Your task to perform on an android device: change timer sound Image 0: 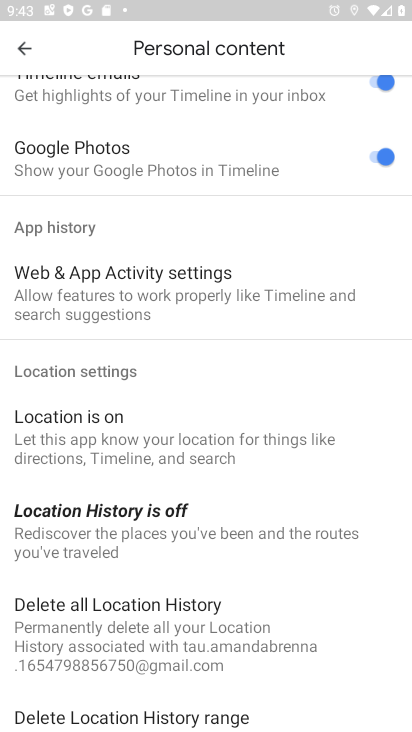
Step 0: press home button
Your task to perform on an android device: change timer sound Image 1: 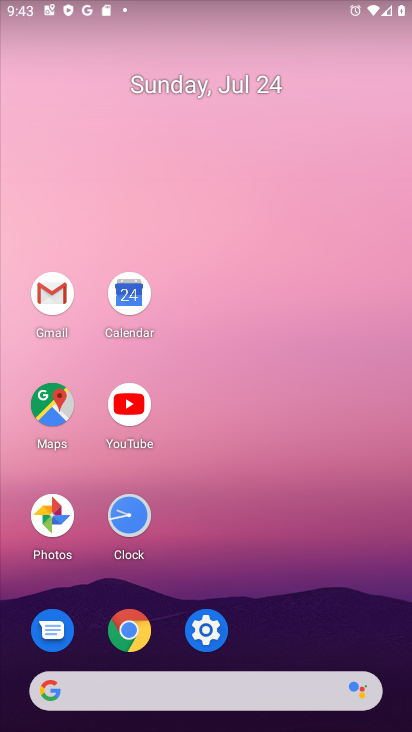
Step 1: click (132, 526)
Your task to perform on an android device: change timer sound Image 2: 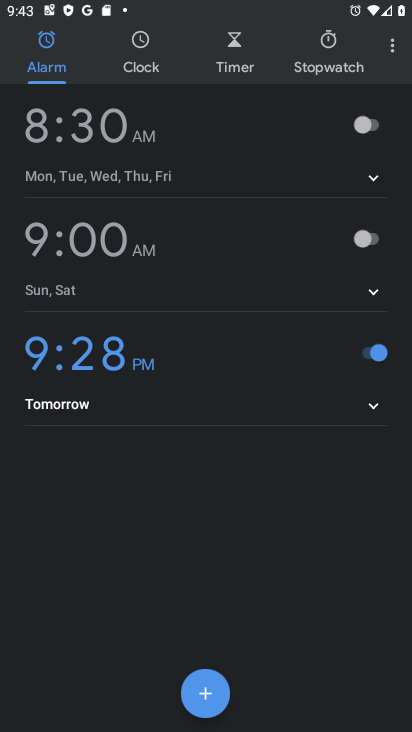
Step 2: click (391, 52)
Your task to perform on an android device: change timer sound Image 3: 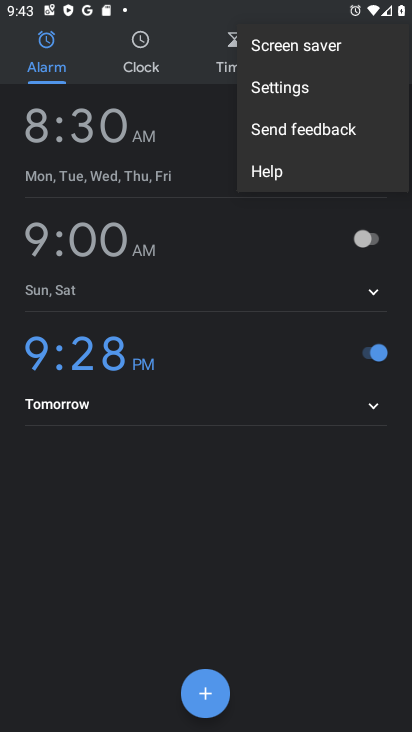
Step 3: click (295, 80)
Your task to perform on an android device: change timer sound Image 4: 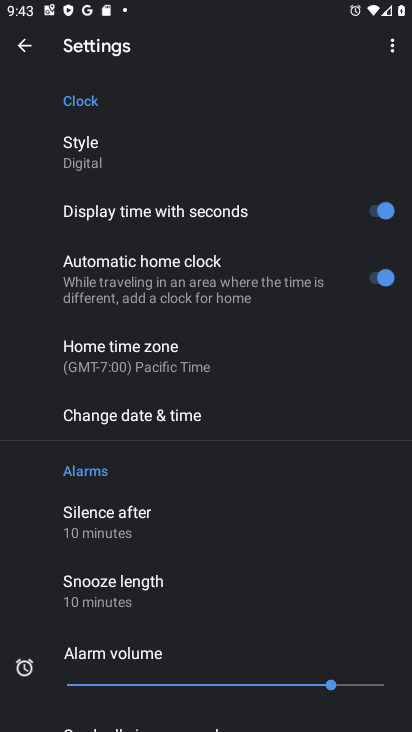
Step 4: drag from (203, 623) to (203, 429)
Your task to perform on an android device: change timer sound Image 5: 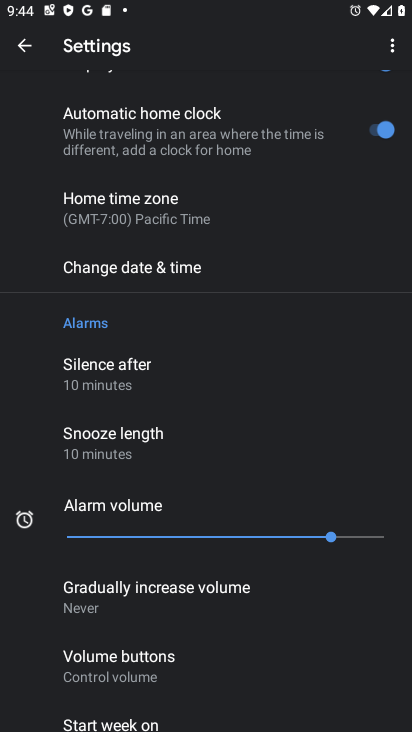
Step 5: drag from (219, 625) to (204, 296)
Your task to perform on an android device: change timer sound Image 6: 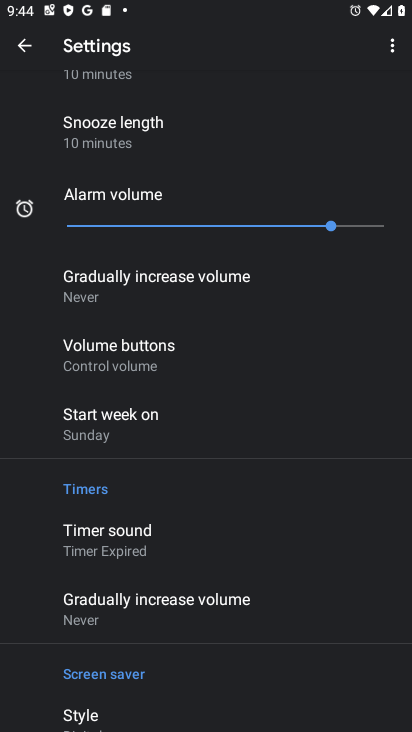
Step 6: click (105, 529)
Your task to perform on an android device: change timer sound Image 7: 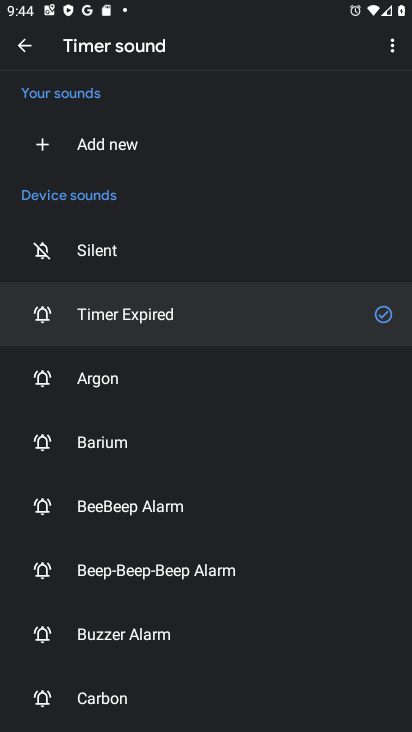
Step 7: click (83, 377)
Your task to perform on an android device: change timer sound Image 8: 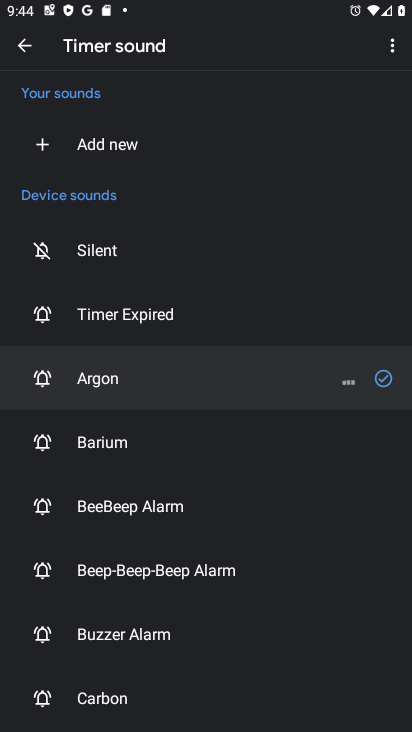
Step 8: task complete